Your task to perform on an android device: Open Reddit.com Image 0: 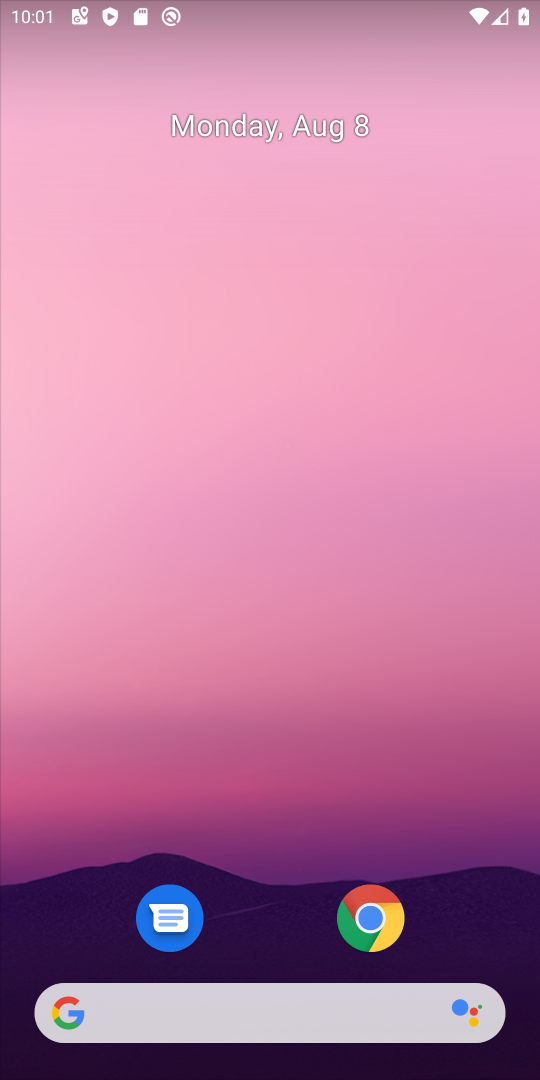
Step 0: drag from (261, 969) to (181, 1)
Your task to perform on an android device: Open Reddit.com Image 1: 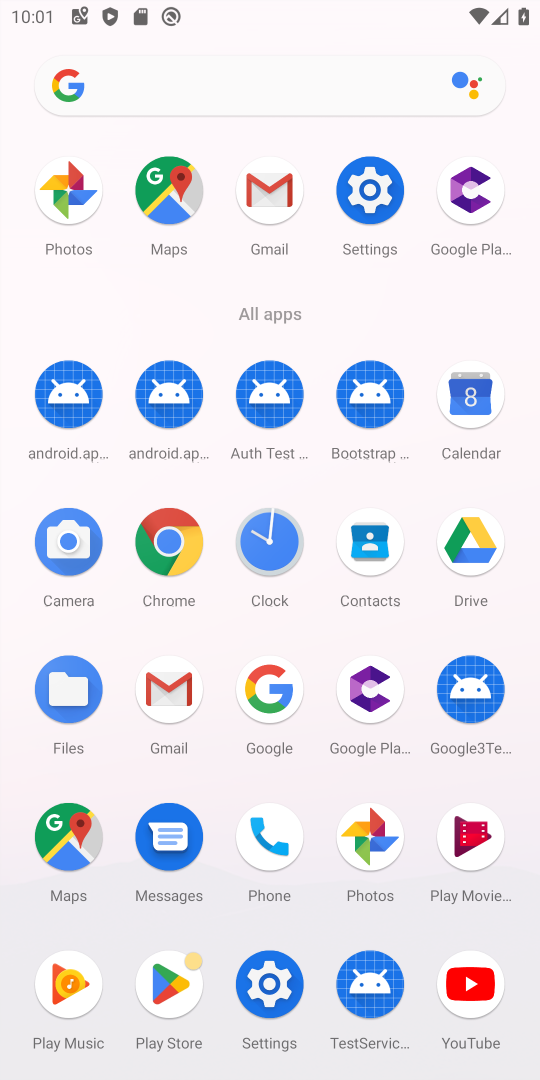
Step 1: click (179, 544)
Your task to perform on an android device: Open Reddit.com Image 2: 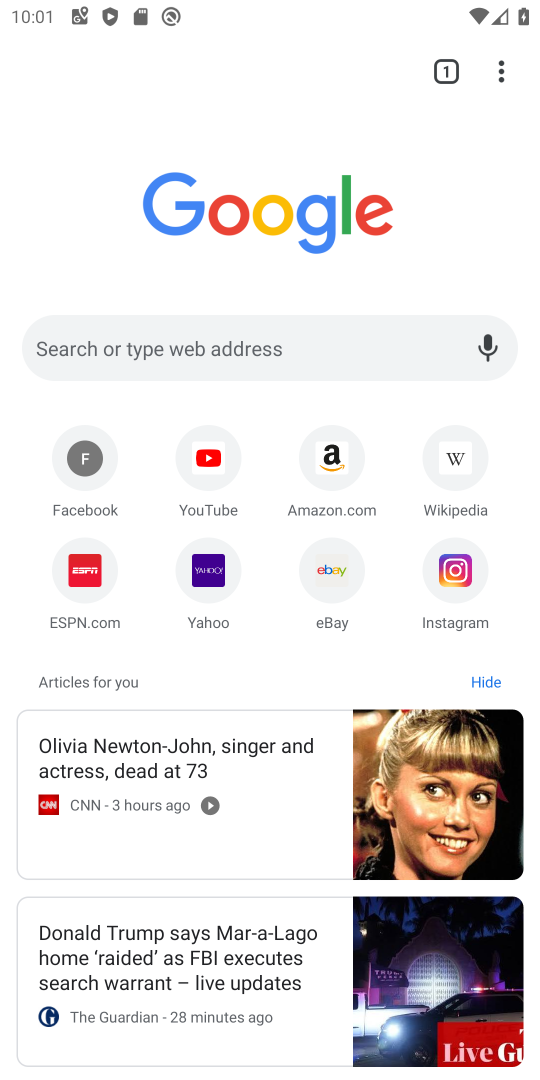
Step 2: click (189, 340)
Your task to perform on an android device: Open Reddit.com Image 3: 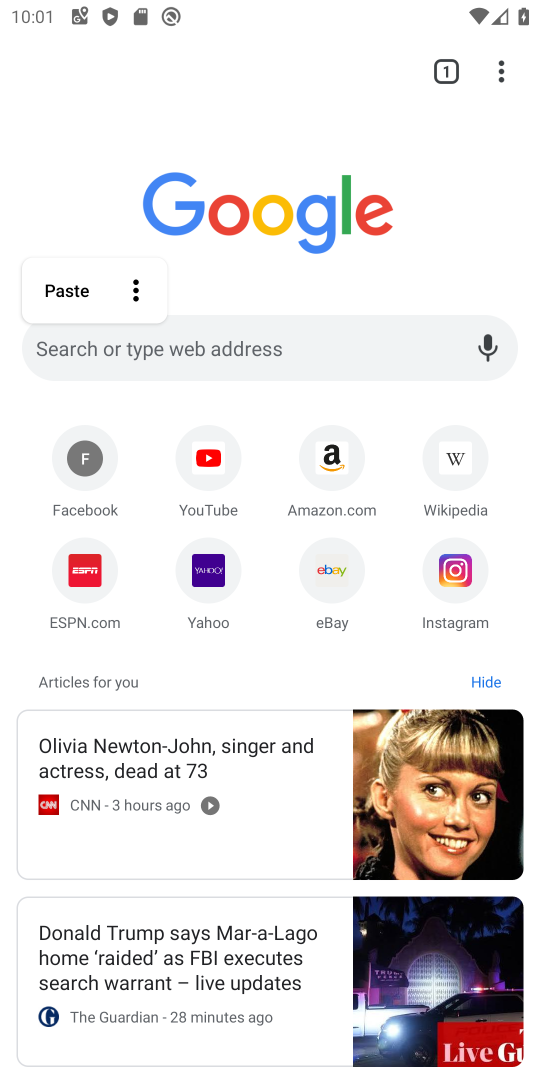
Step 3: click (159, 341)
Your task to perform on an android device: Open Reddit.com Image 4: 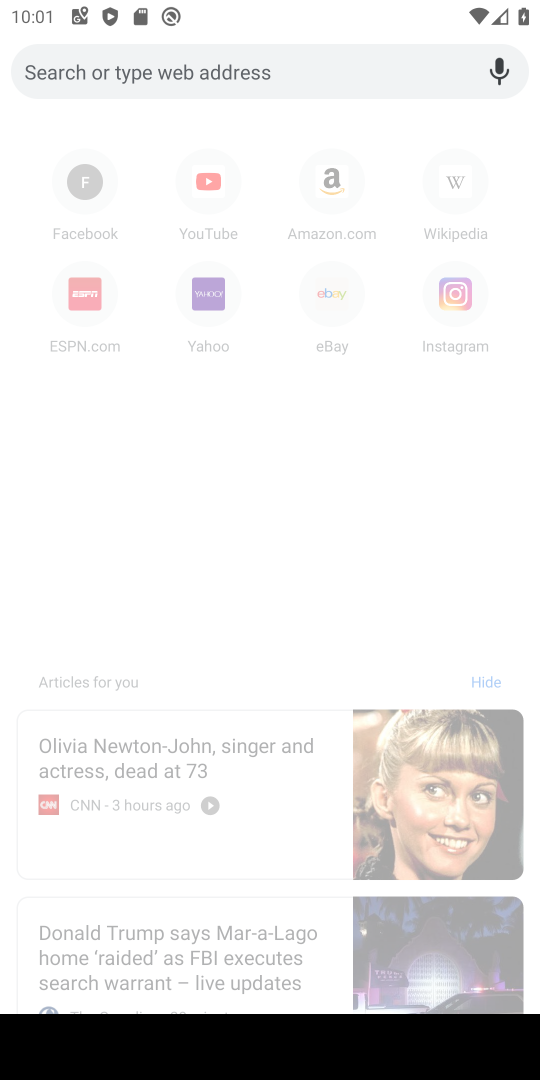
Step 4: type "Reddit.com"
Your task to perform on an android device: Open Reddit.com Image 5: 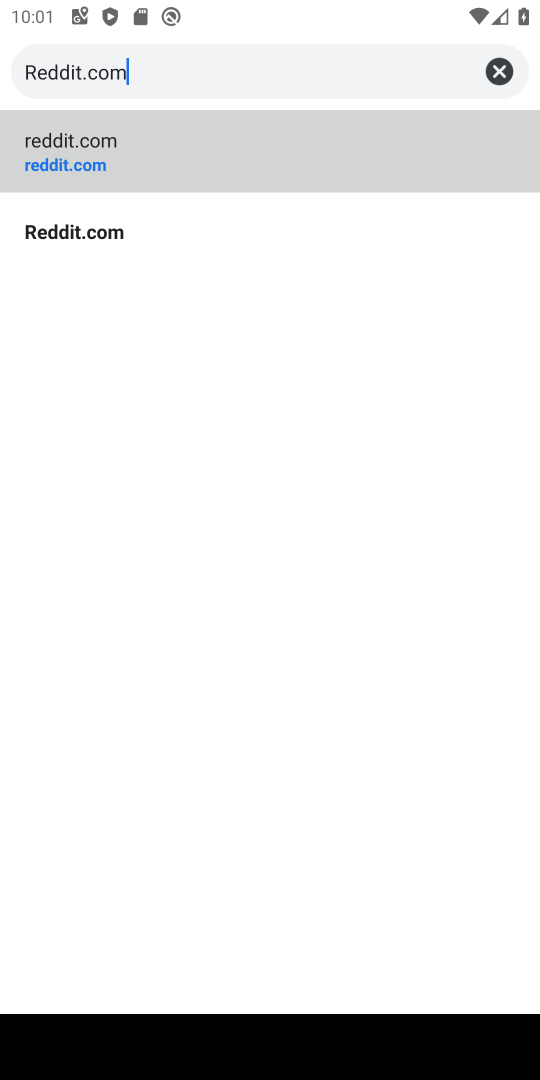
Step 5: type ""
Your task to perform on an android device: Open Reddit.com Image 6: 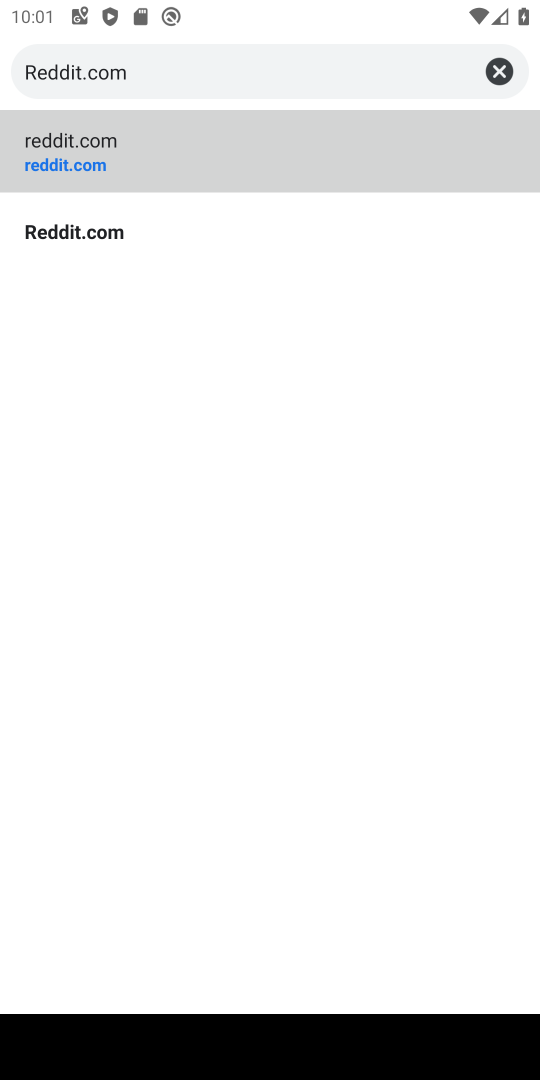
Step 6: click (353, 124)
Your task to perform on an android device: Open Reddit.com Image 7: 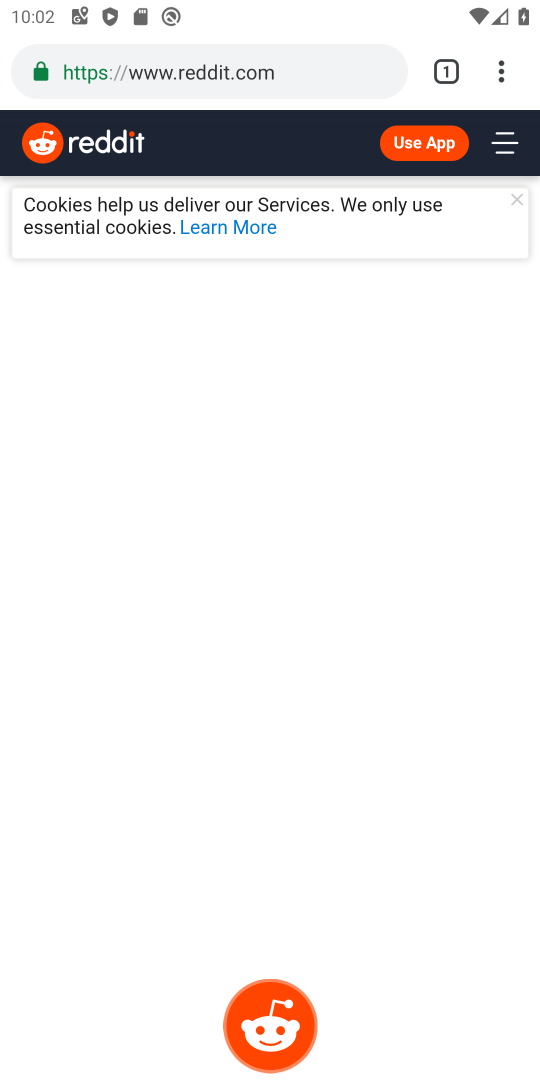
Step 7: task complete